Your task to perform on an android device: change text size in settings app Image 0: 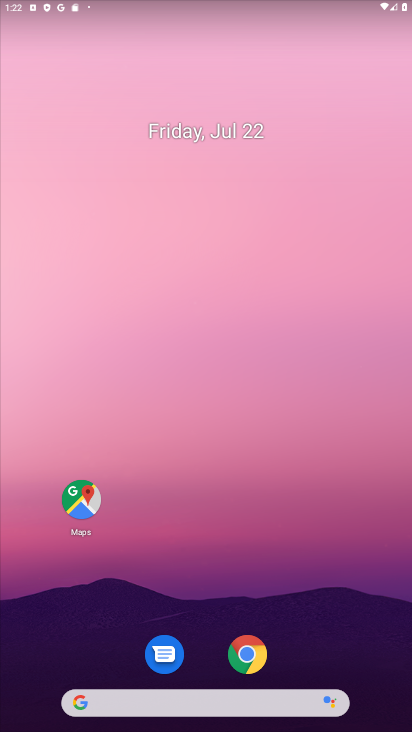
Step 0: drag from (247, 700) to (236, 156)
Your task to perform on an android device: change text size in settings app Image 1: 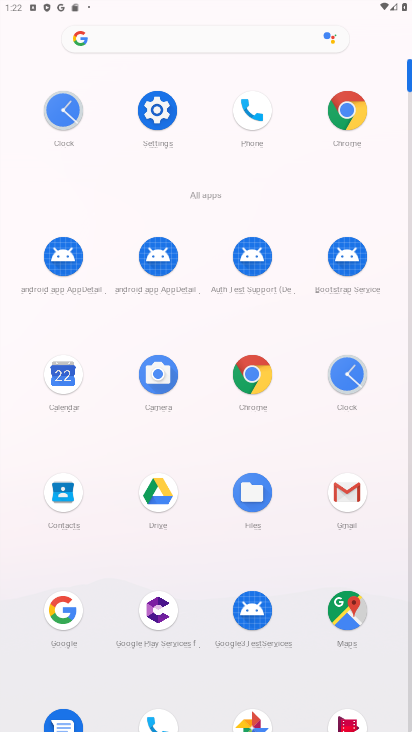
Step 1: click (166, 127)
Your task to perform on an android device: change text size in settings app Image 2: 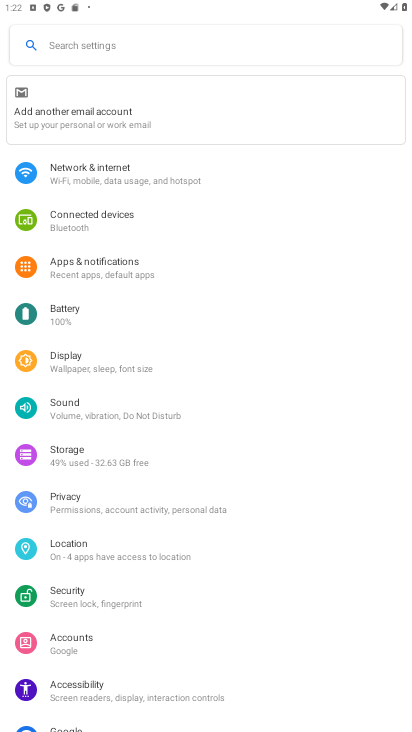
Step 2: click (97, 49)
Your task to perform on an android device: change text size in settings app Image 3: 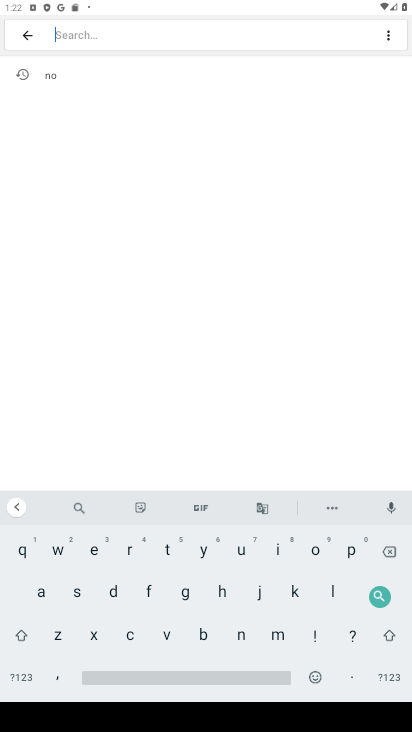
Step 3: click (68, 617)
Your task to perform on an android device: change text size in settings app Image 4: 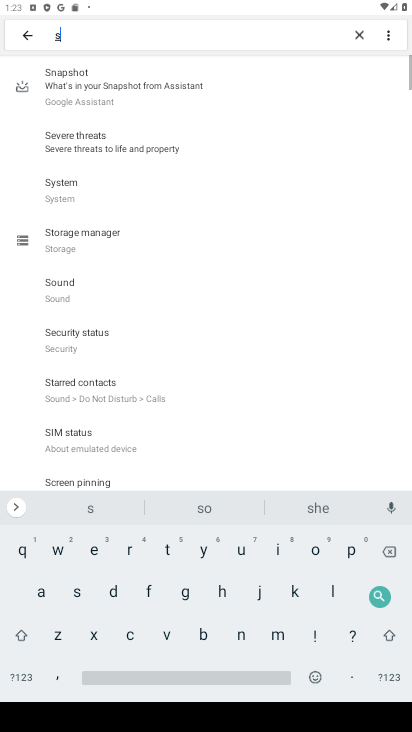
Step 4: click (274, 552)
Your task to perform on an android device: change text size in settings app Image 5: 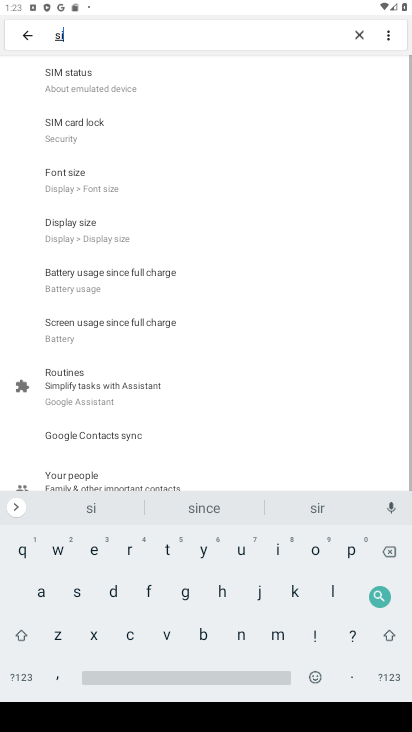
Step 5: click (58, 634)
Your task to perform on an android device: change text size in settings app Image 6: 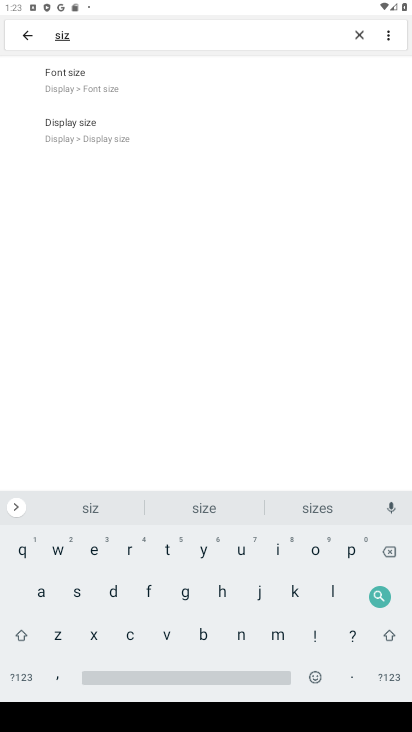
Step 6: click (124, 77)
Your task to perform on an android device: change text size in settings app Image 7: 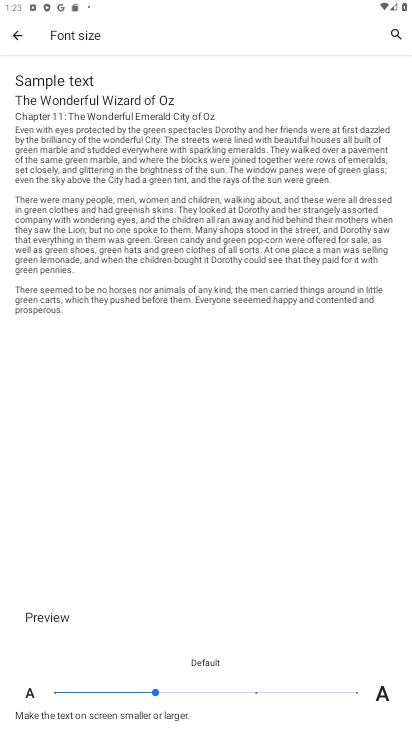
Step 7: click (253, 696)
Your task to perform on an android device: change text size in settings app Image 8: 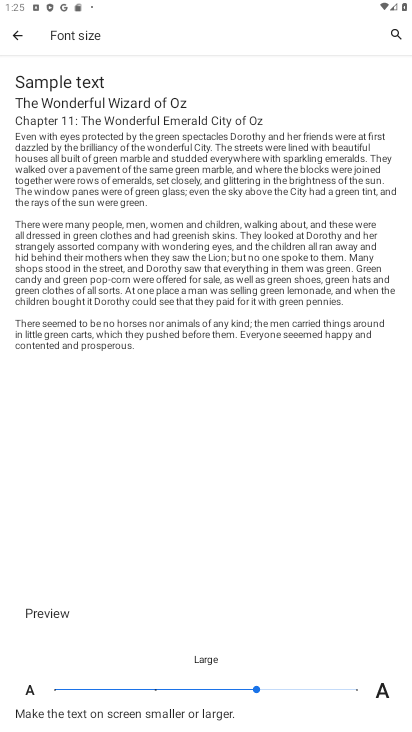
Step 8: task complete